Your task to perform on an android device: uninstall "Messenger Lite" Image 0: 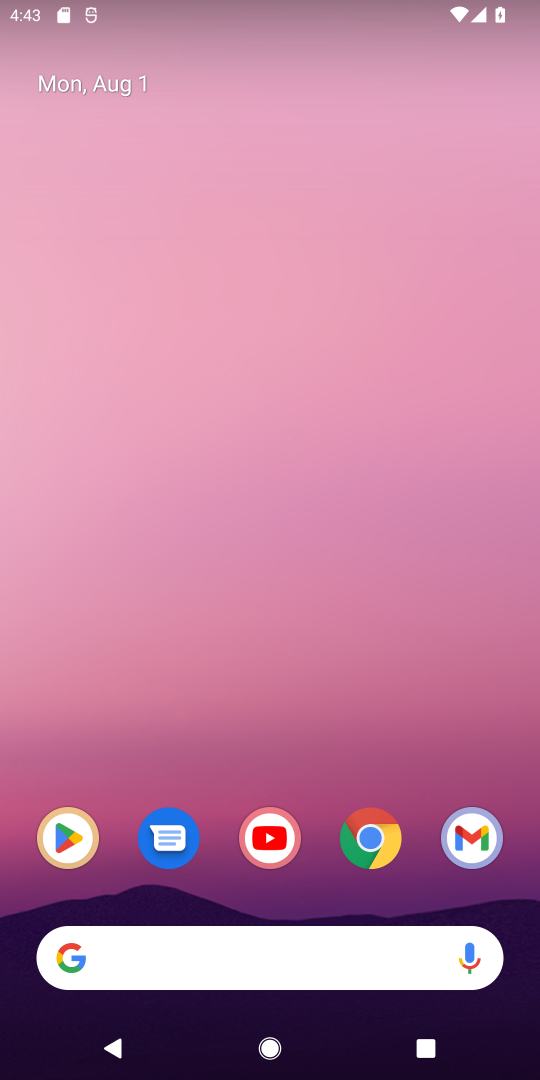
Step 0: click (77, 808)
Your task to perform on an android device: uninstall "Messenger Lite" Image 1: 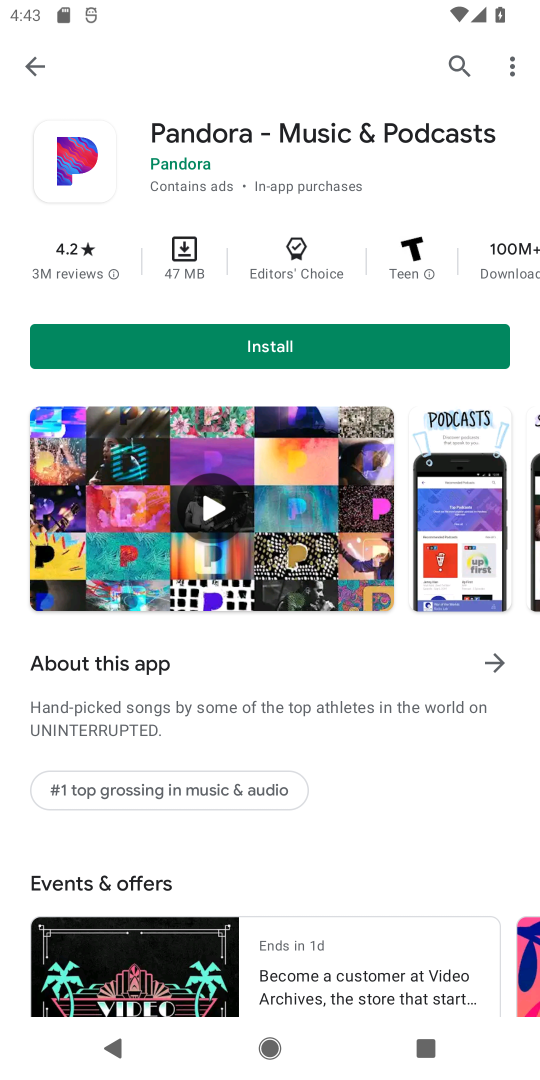
Step 1: click (450, 70)
Your task to perform on an android device: uninstall "Messenger Lite" Image 2: 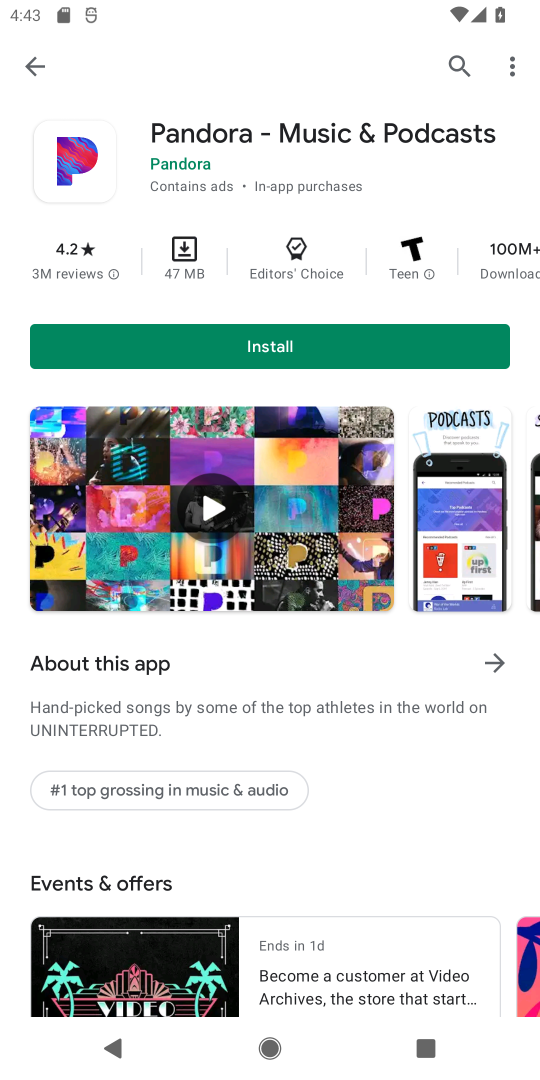
Step 2: click (456, 67)
Your task to perform on an android device: uninstall "Messenger Lite" Image 3: 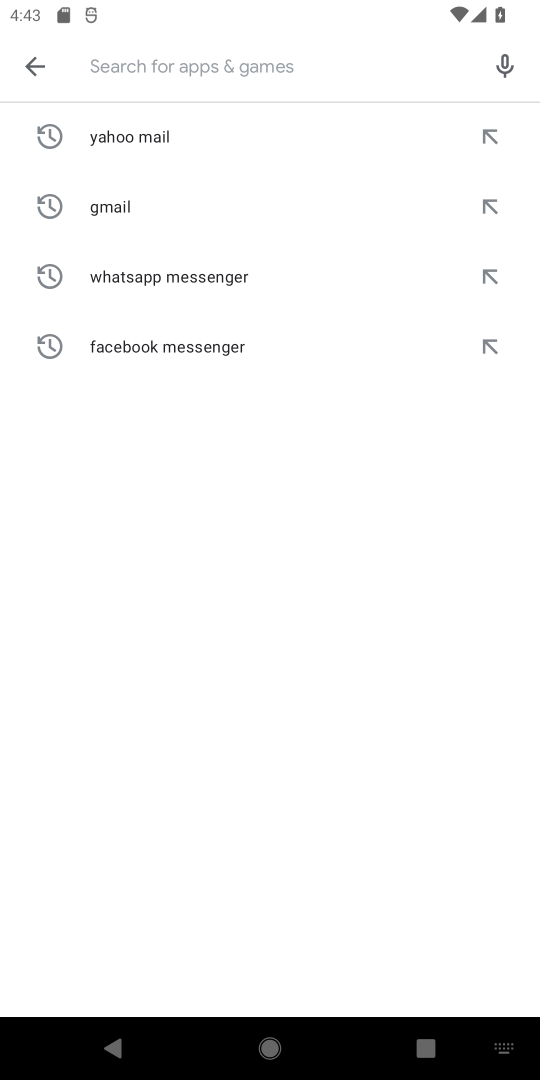
Step 3: type "Messenger Lite"
Your task to perform on an android device: uninstall "Messenger Lite" Image 4: 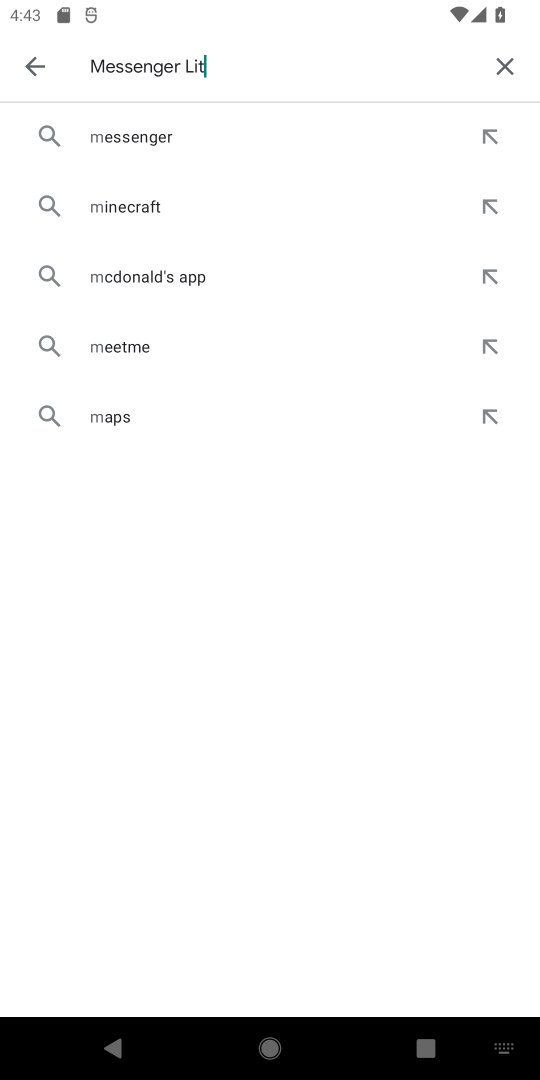
Step 4: type ""
Your task to perform on an android device: uninstall "Messenger Lite" Image 5: 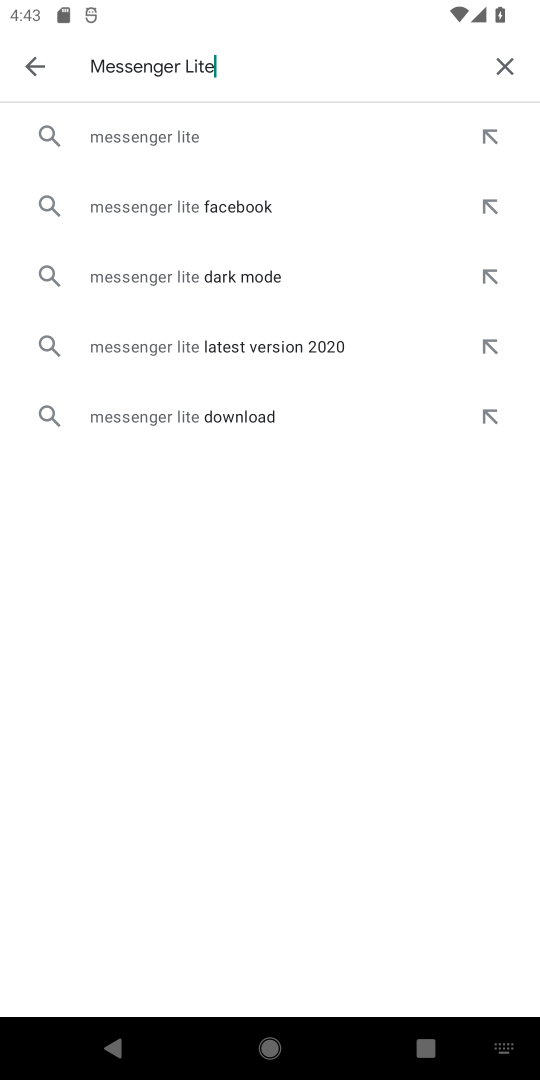
Step 5: click (130, 140)
Your task to perform on an android device: uninstall "Messenger Lite" Image 6: 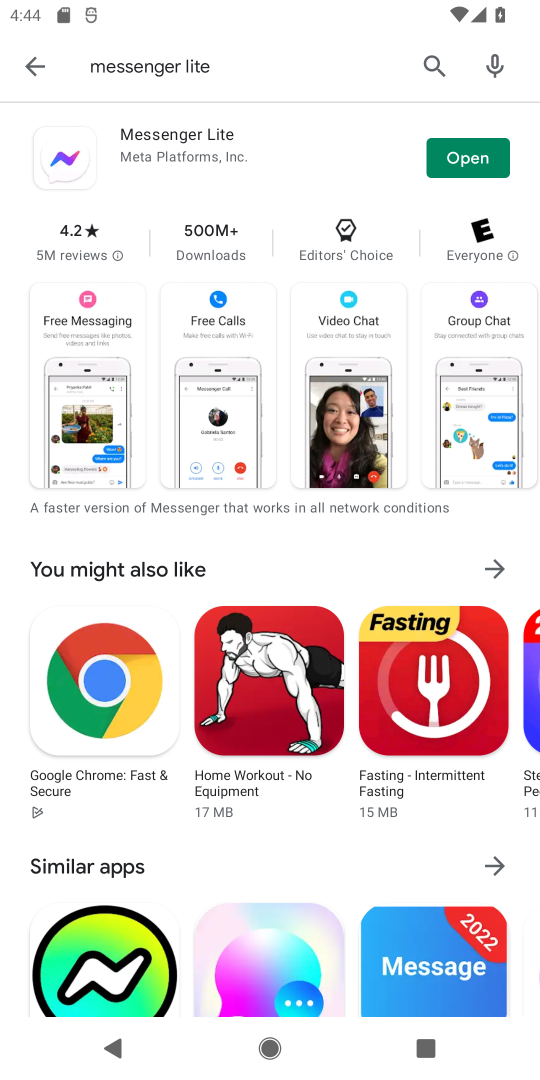
Step 6: click (204, 164)
Your task to perform on an android device: uninstall "Messenger Lite" Image 7: 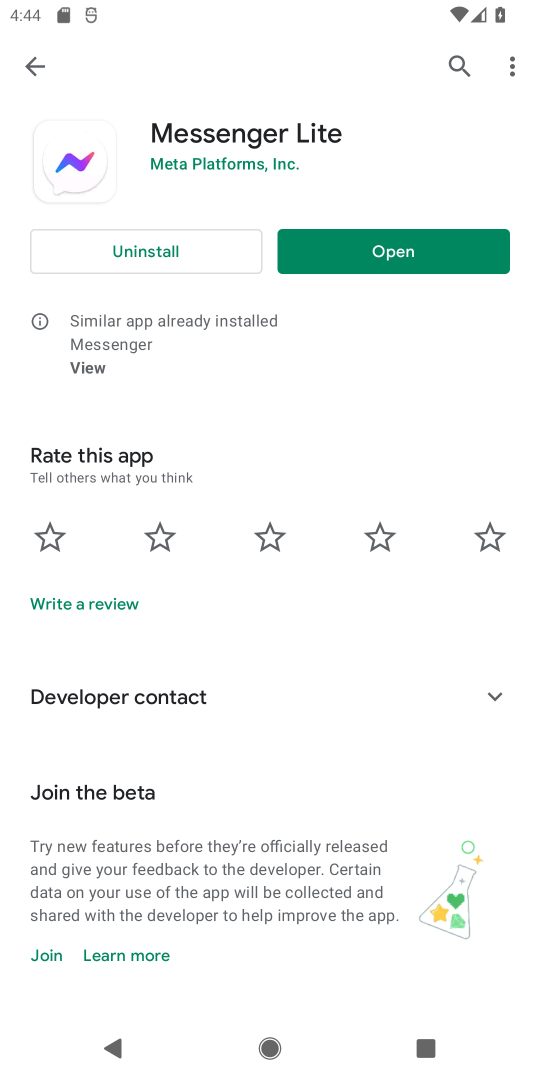
Step 7: click (137, 256)
Your task to perform on an android device: uninstall "Messenger Lite" Image 8: 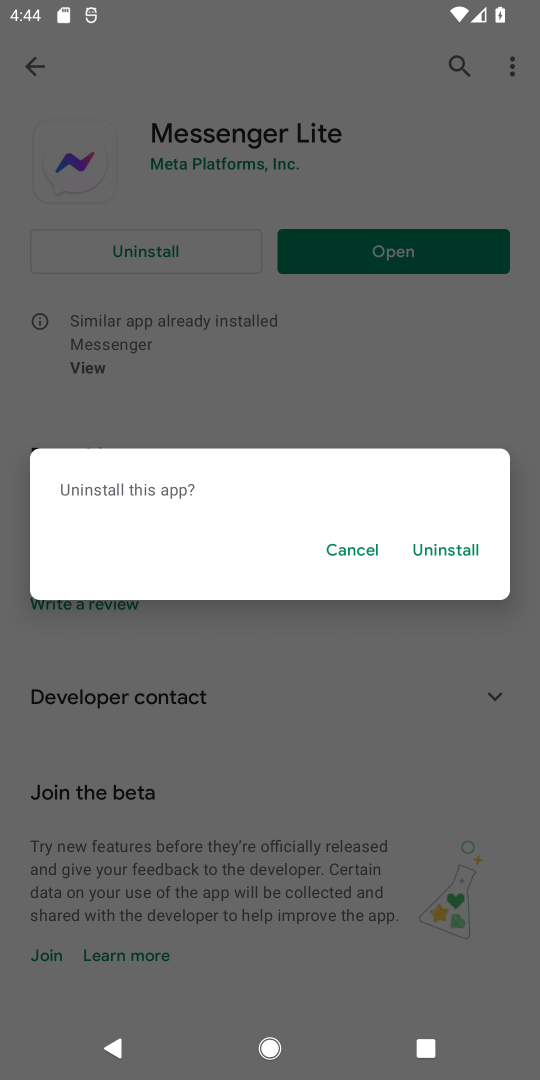
Step 8: click (424, 546)
Your task to perform on an android device: uninstall "Messenger Lite" Image 9: 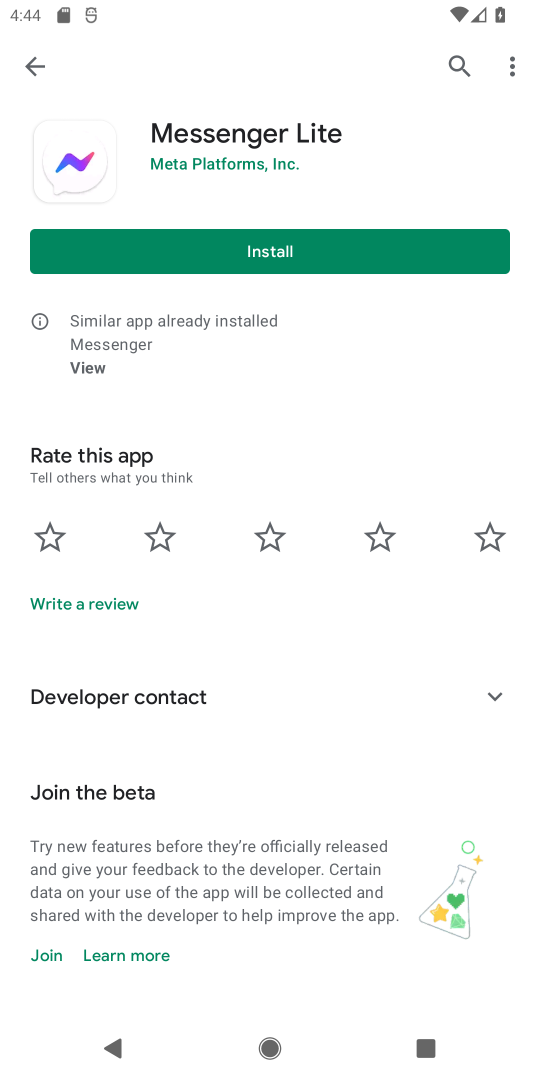
Step 9: task complete